Your task to perform on an android device: allow cookies in the chrome app Image 0: 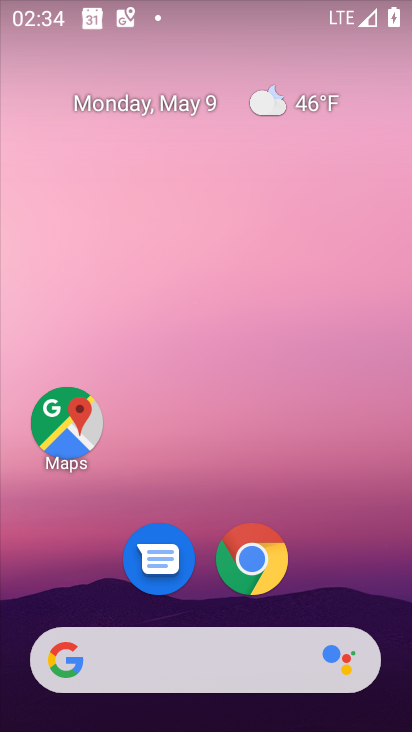
Step 0: click (250, 555)
Your task to perform on an android device: allow cookies in the chrome app Image 1: 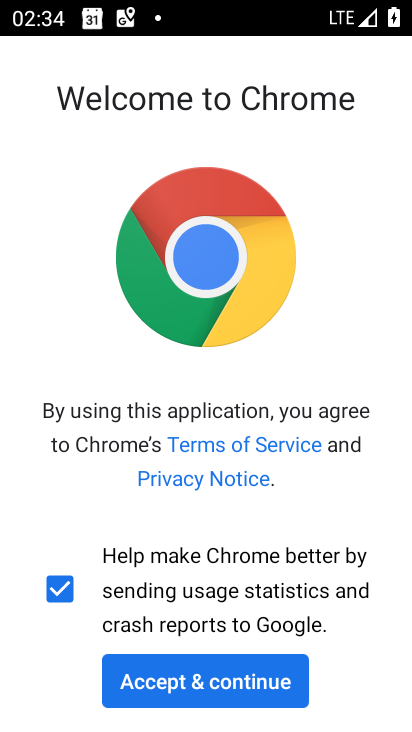
Step 1: click (219, 675)
Your task to perform on an android device: allow cookies in the chrome app Image 2: 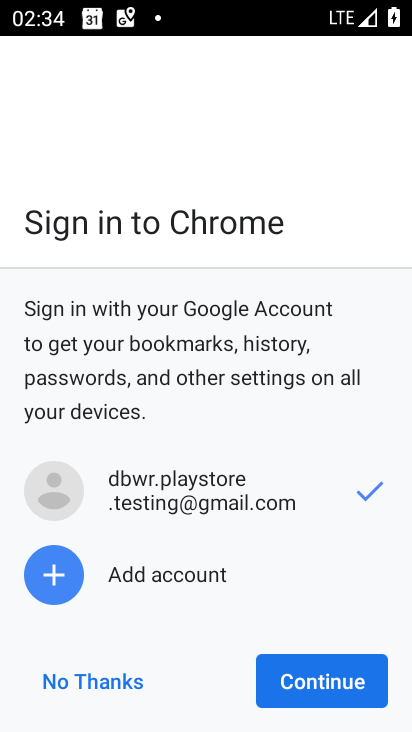
Step 2: click (324, 690)
Your task to perform on an android device: allow cookies in the chrome app Image 3: 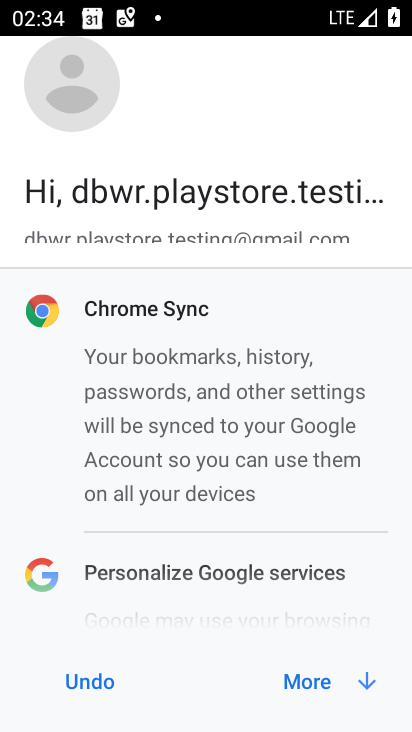
Step 3: click (330, 681)
Your task to perform on an android device: allow cookies in the chrome app Image 4: 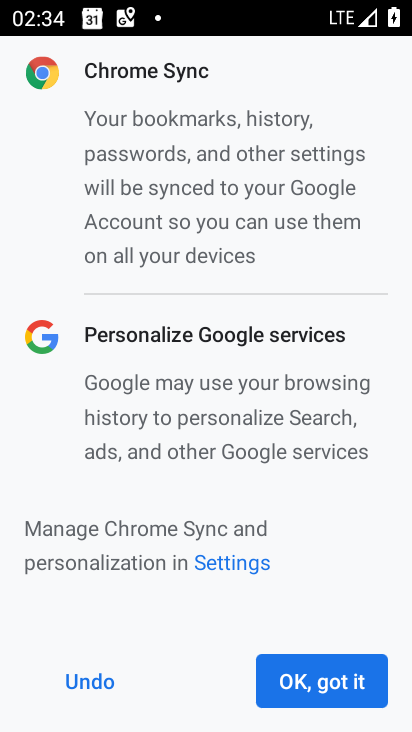
Step 4: click (330, 681)
Your task to perform on an android device: allow cookies in the chrome app Image 5: 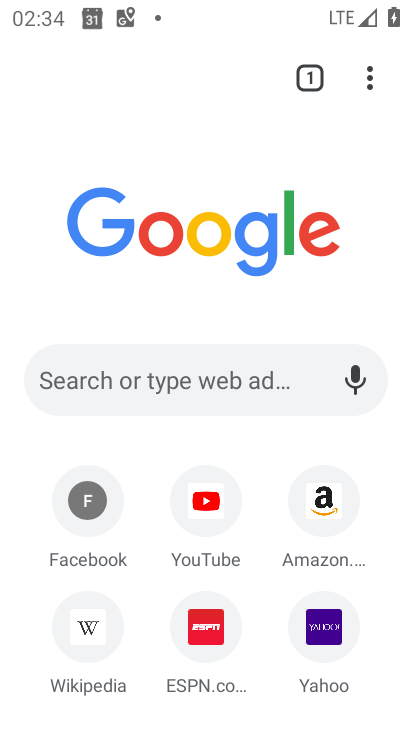
Step 5: click (367, 78)
Your task to perform on an android device: allow cookies in the chrome app Image 6: 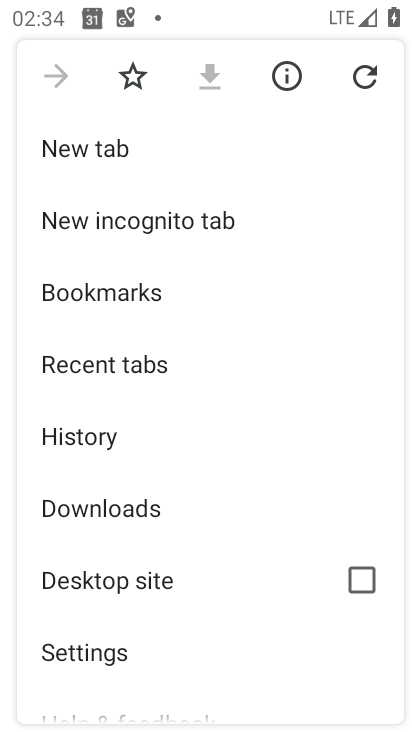
Step 6: click (81, 656)
Your task to perform on an android device: allow cookies in the chrome app Image 7: 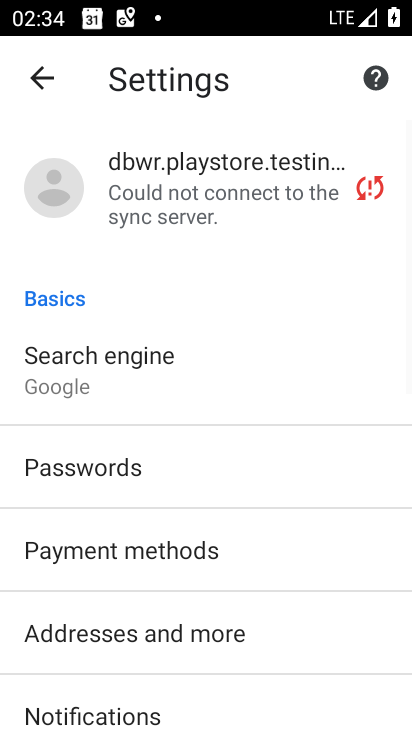
Step 7: drag from (134, 607) to (245, 446)
Your task to perform on an android device: allow cookies in the chrome app Image 8: 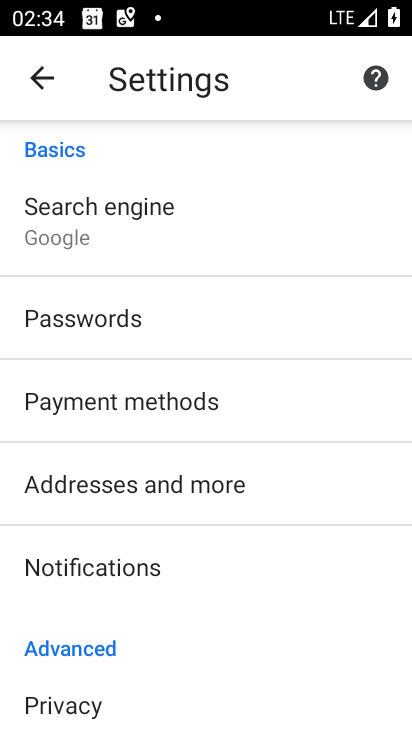
Step 8: drag from (116, 611) to (230, 482)
Your task to perform on an android device: allow cookies in the chrome app Image 9: 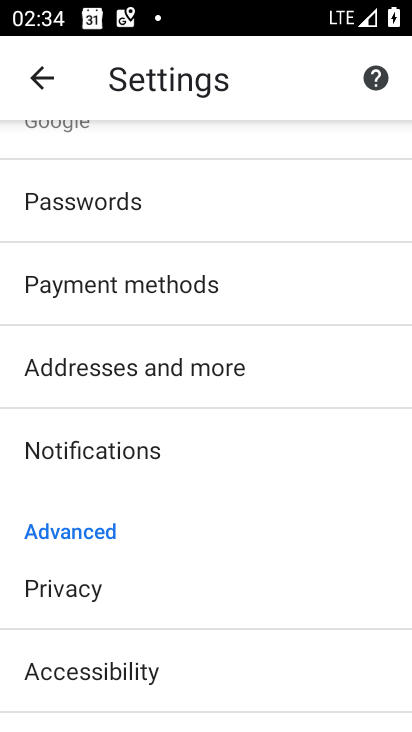
Step 9: drag from (141, 582) to (281, 406)
Your task to perform on an android device: allow cookies in the chrome app Image 10: 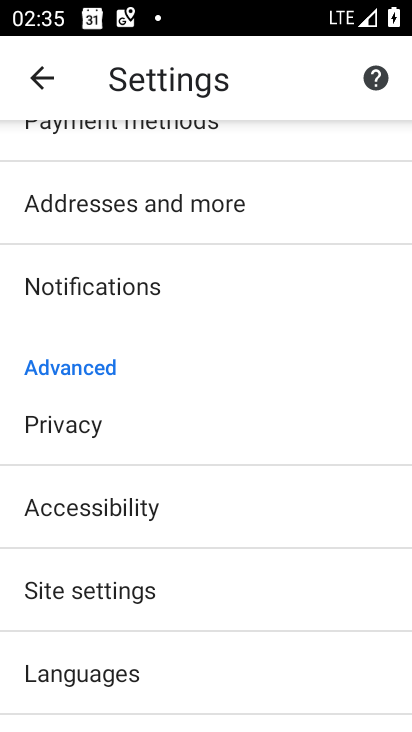
Step 10: drag from (106, 627) to (253, 473)
Your task to perform on an android device: allow cookies in the chrome app Image 11: 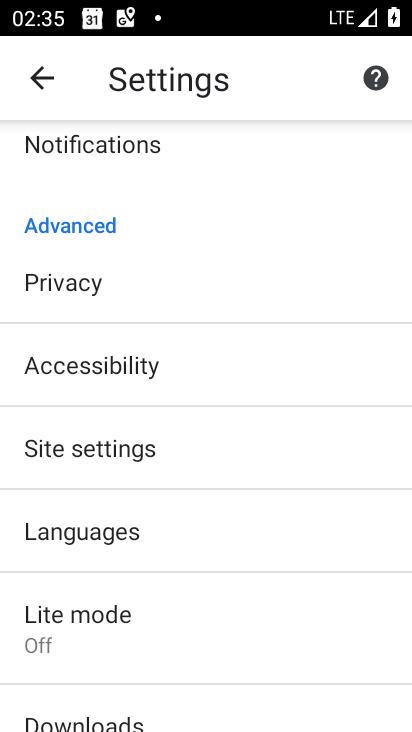
Step 11: click (95, 449)
Your task to perform on an android device: allow cookies in the chrome app Image 12: 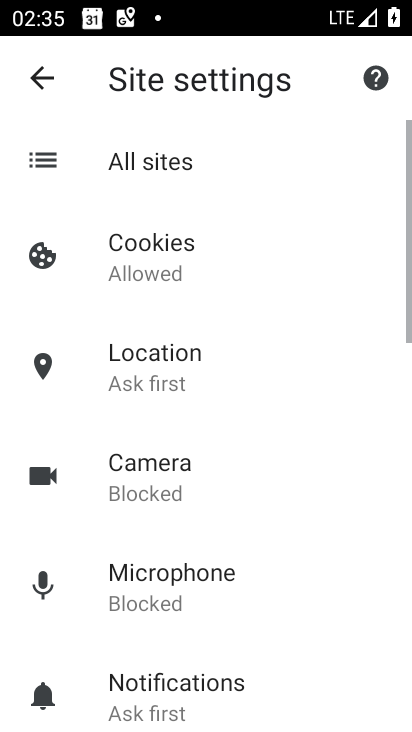
Step 12: drag from (140, 522) to (217, 417)
Your task to perform on an android device: allow cookies in the chrome app Image 13: 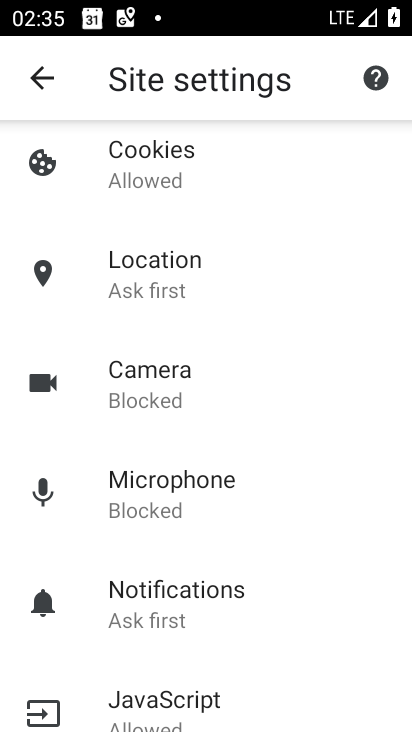
Step 13: click (167, 154)
Your task to perform on an android device: allow cookies in the chrome app Image 14: 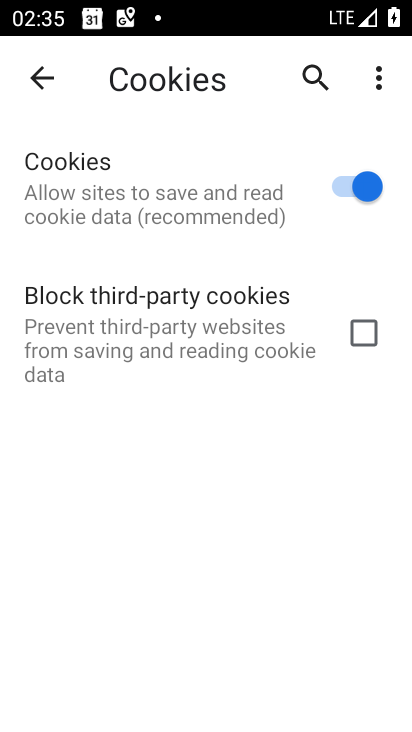
Step 14: task complete